Your task to perform on an android device: turn on javascript in the chrome app Image 0: 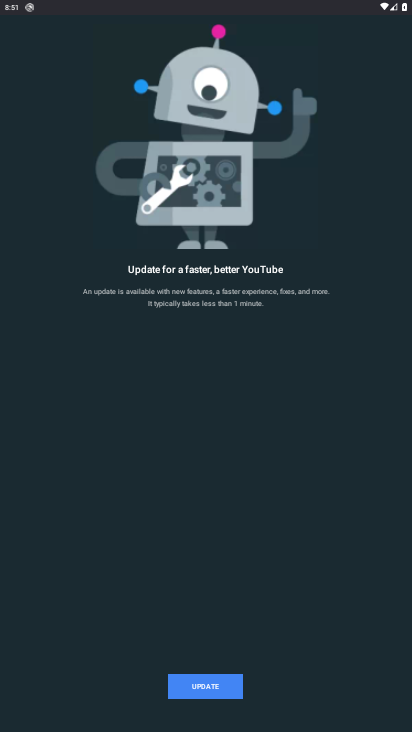
Step 0: press home button
Your task to perform on an android device: turn on javascript in the chrome app Image 1: 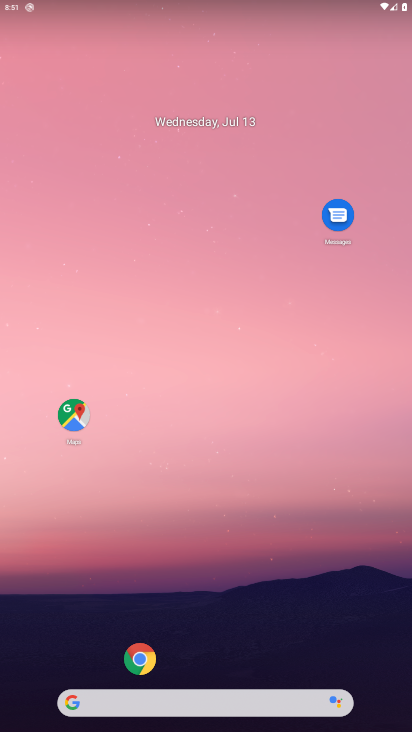
Step 1: click (129, 652)
Your task to perform on an android device: turn on javascript in the chrome app Image 2: 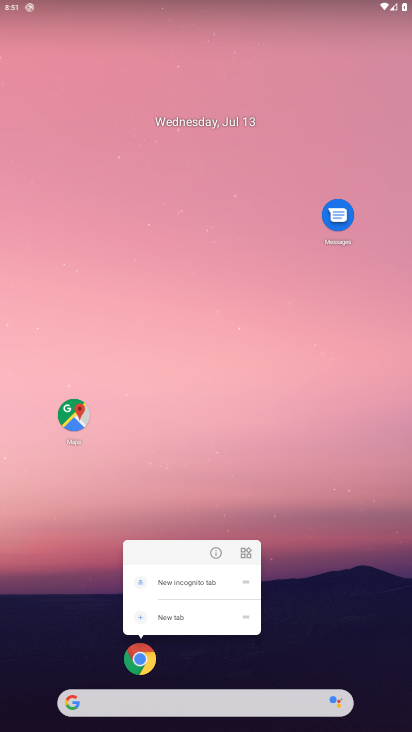
Step 2: click (139, 660)
Your task to perform on an android device: turn on javascript in the chrome app Image 3: 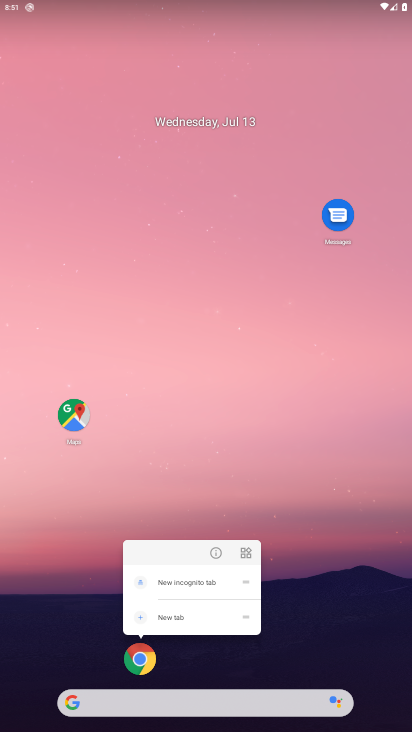
Step 3: click (143, 664)
Your task to perform on an android device: turn on javascript in the chrome app Image 4: 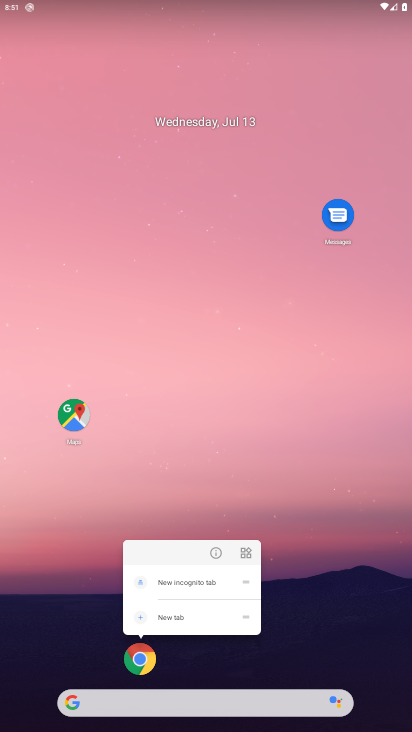
Step 4: click (145, 661)
Your task to perform on an android device: turn on javascript in the chrome app Image 5: 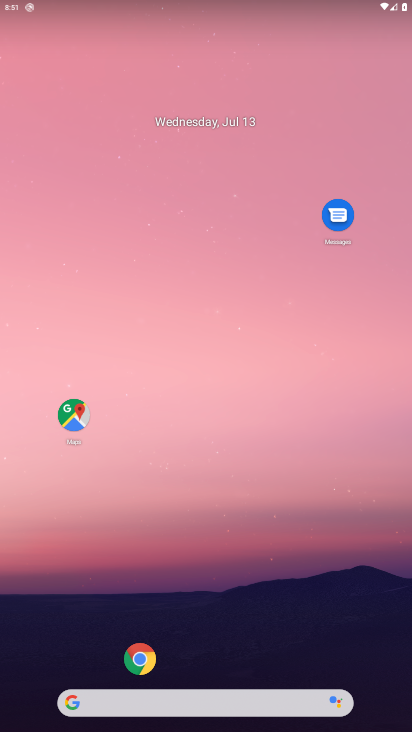
Step 5: click (130, 653)
Your task to perform on an android device: turn on javascript in the chrome app Image 6: 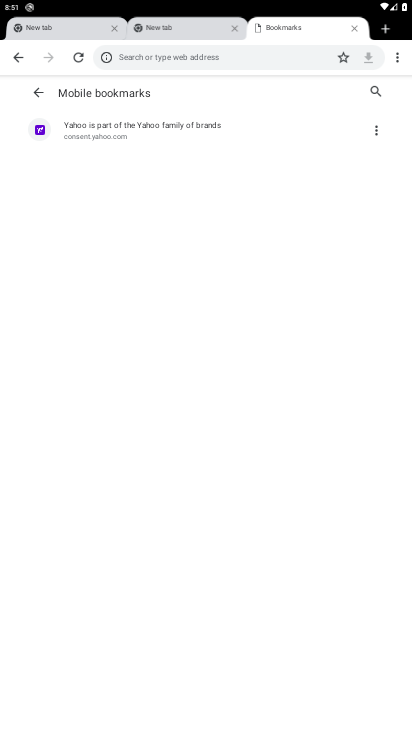
Step 6: click (395, 60)
Your task to perform on an android device: turn on javascript in the chrome app Image 7: 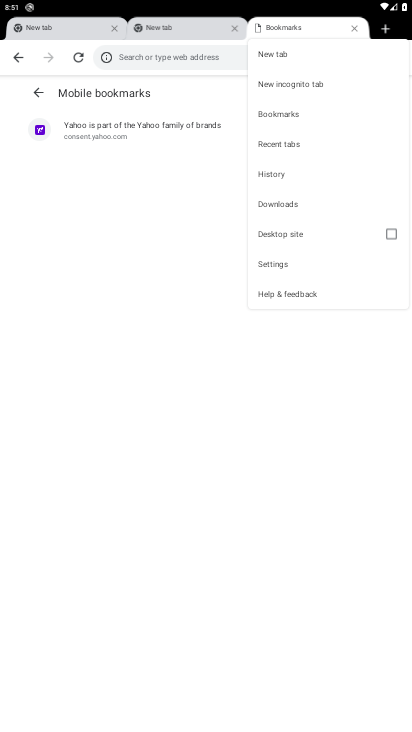
Step 7: click (284, 268)
Your task to perform on an android device: turn on javascript in the chrome app Image 8: 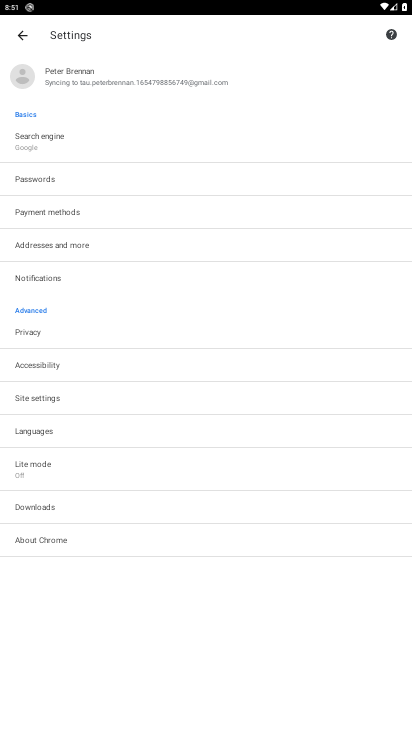
Step 8: click (45, 396)
Your task to perform on an android device: turn on javascript in the chrome app Image 9: 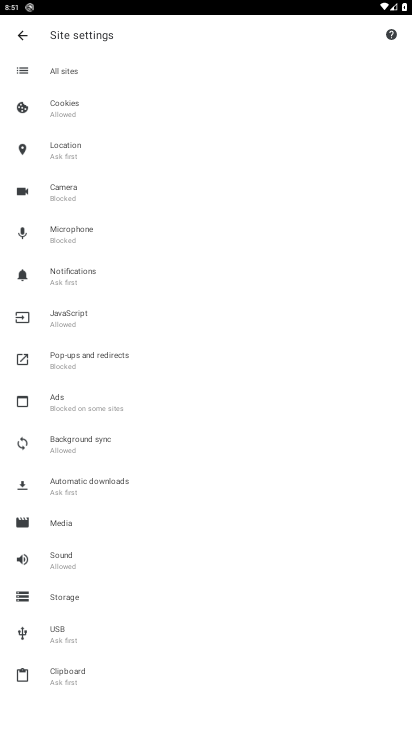
Step 9: click (76, 321)
Your task to perform on an android device: turn on javascript in the chrome app Image 10: 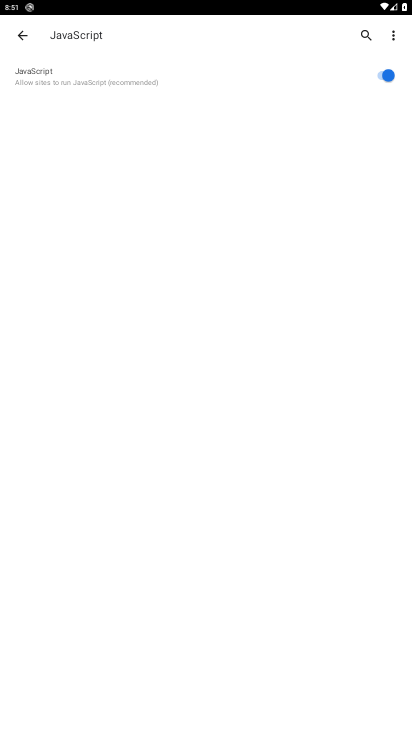
Step 10: task complete